Your task to perform on an android device: change the clock display to digital Image 0: 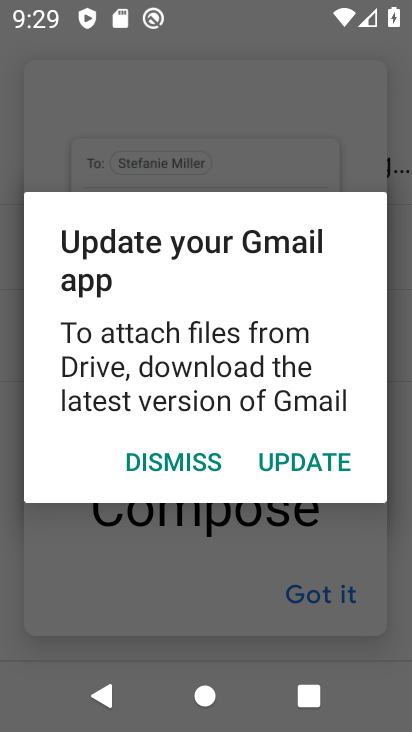
Step 0: press home button
Your task to perform on an android device: change the clock display to digital Image 1: 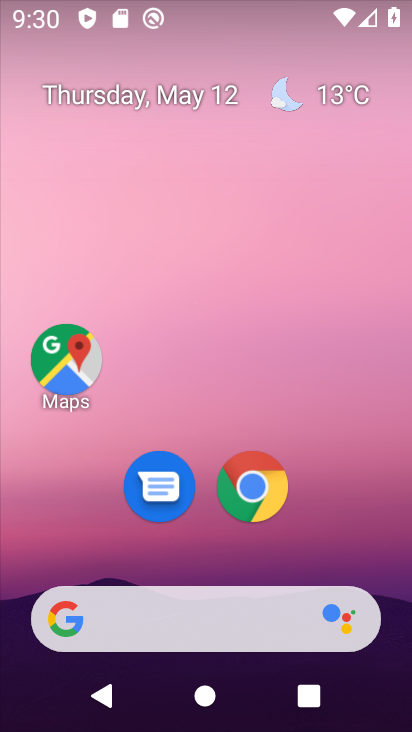
Step 1: drag from (368, 493) to (219, 10)
Your task to perform on an android device: change the clock display to digital Image 2: 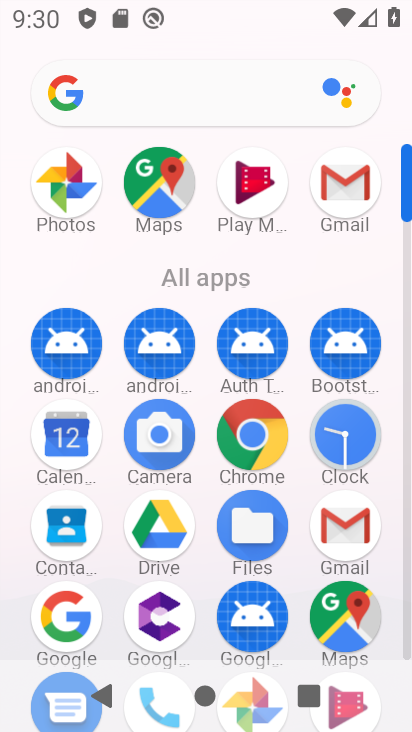
Step 2: click (354, 444)
Your task to perform on an android device: change the clock display to digital Image 3: 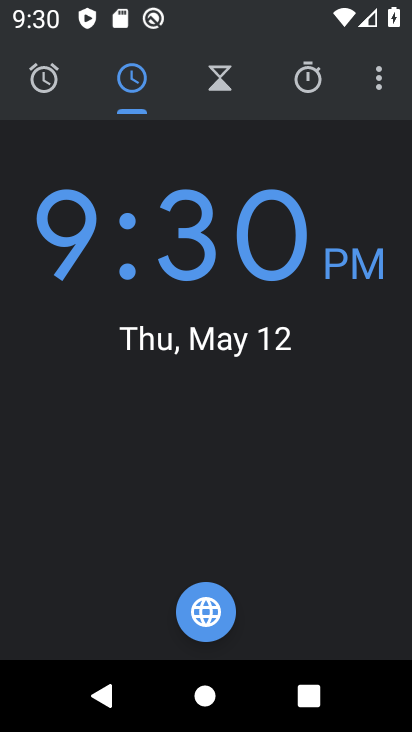
Step 3: click (383, 103)
Your task to perform on an android device: change the clock display to digital Image 4: 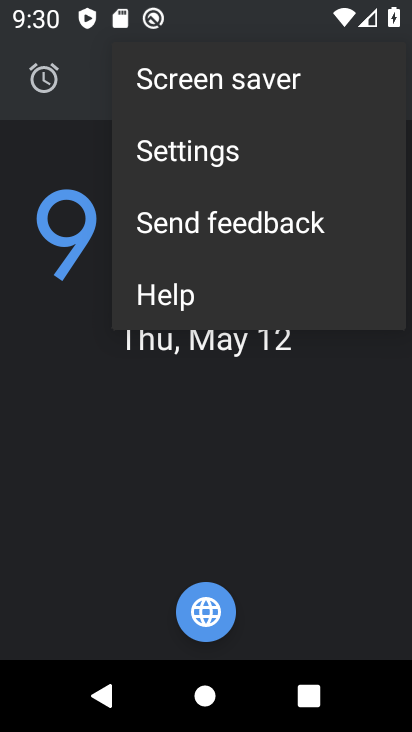
Step 4: click (239, 166)
Your task to perform on an android device: change the clock display to digital Image 5: 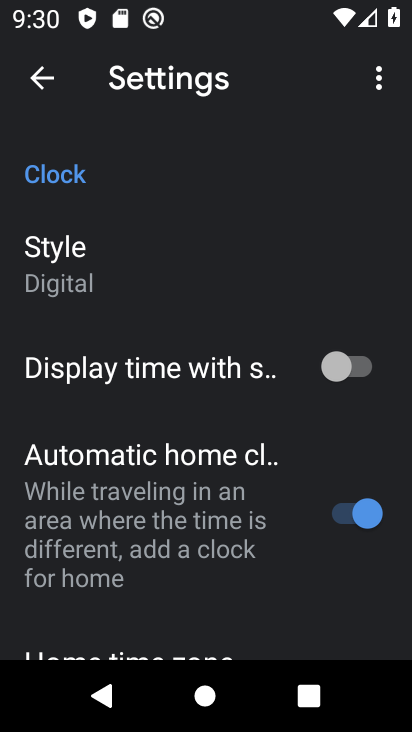
Step 5: task complete